Your task to perform on an android device: Open the web browser Image 0: 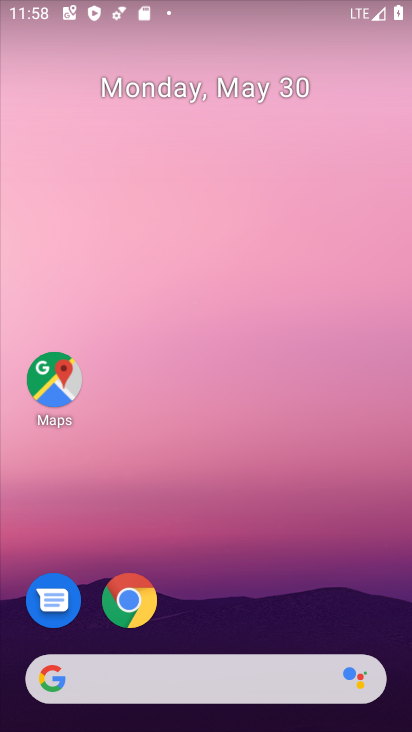
Step 0: click (135, 591)
Your task to perform on an android device: Open the web browser Image 1: 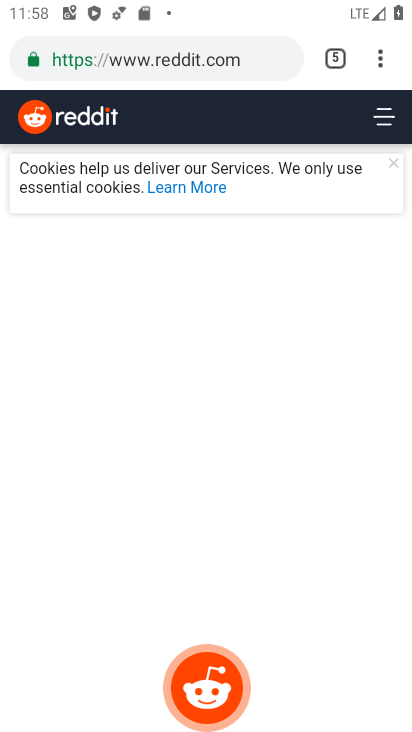
Step 1: task complete